Your task to perform on an android device: read, delete, or share a saved page in the chrome app Image 0: 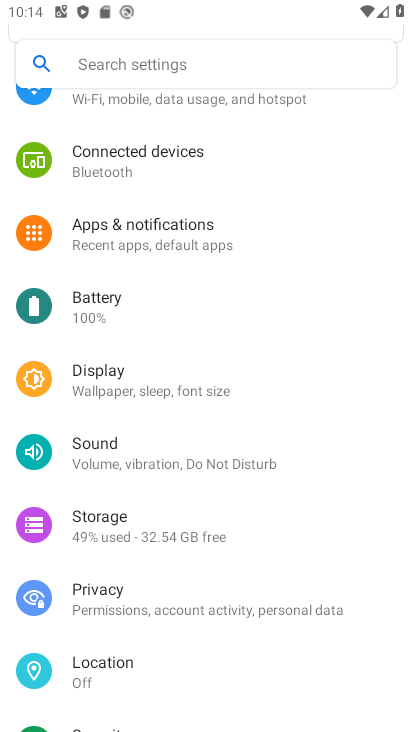
Step 0: press home button
Your task to perform on an android device: read, delete, or share a saved page in the chrome app Image 1: 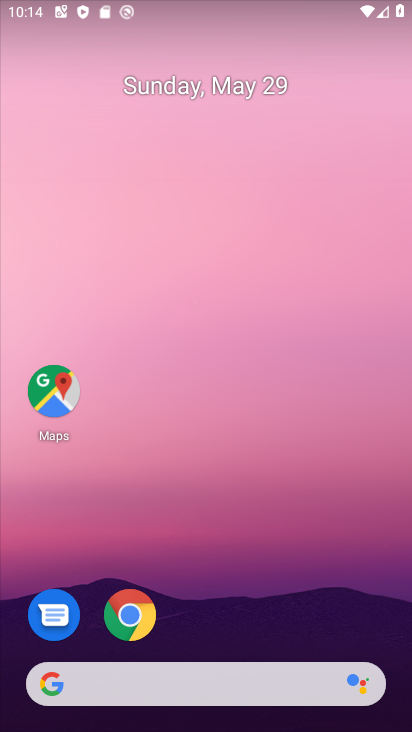
Step 1: click (121, 628)
Your task to perform on an android device: read, delete, or share a saved page in the chrome app Image 2: 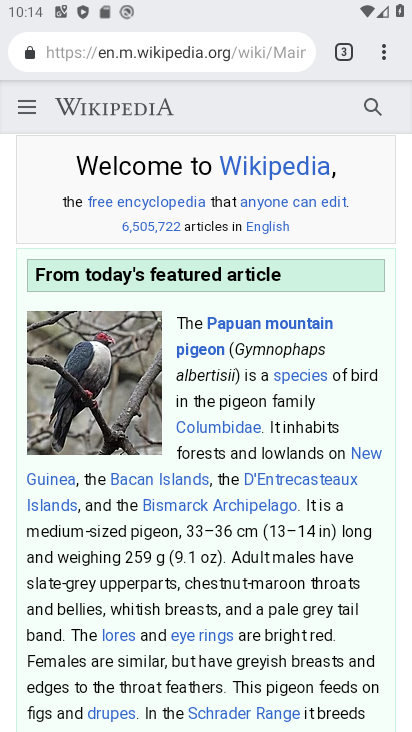
Step 2: click (386, 47)
Your task to perform on an android device: read, delete, or share a saved page in the chrome app Image 3: 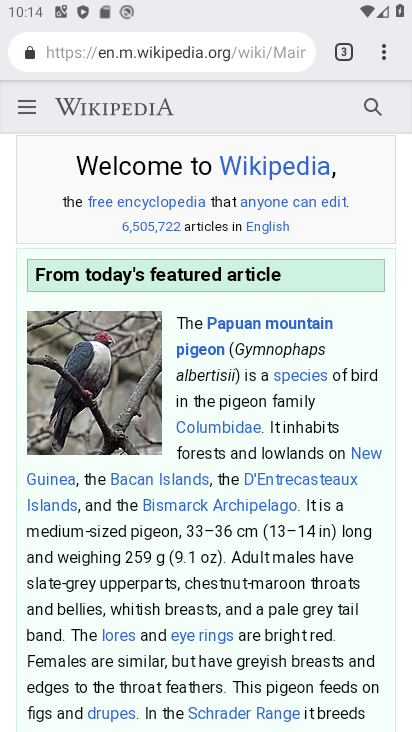
Step 3: task complete